Your task to perform on an android device: Turn off the flashlight Image 0: 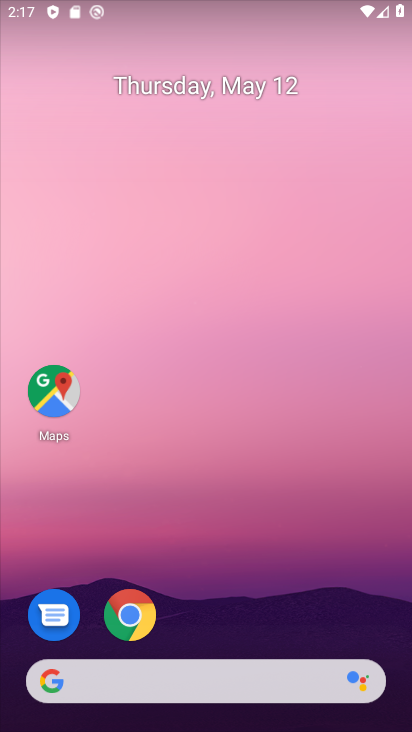
Step 0: drag from (73, 558) to (228, 88)
Your task to perform on an android device: Turn off the flashlight Image 1: 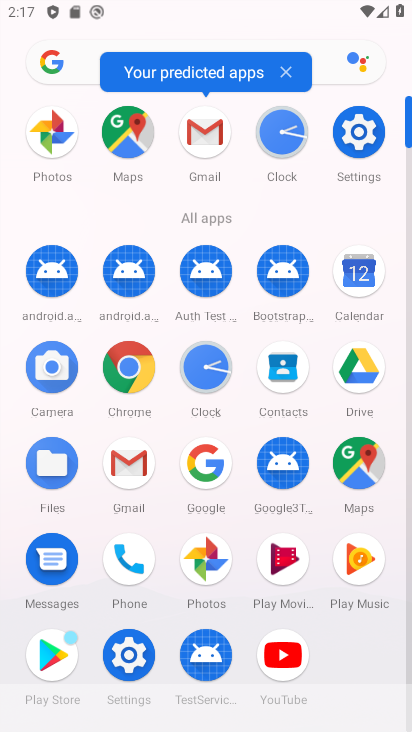
Step 1: click (363, 118)
Your task to perform on an android device: Turn off the flashlight Image 2: 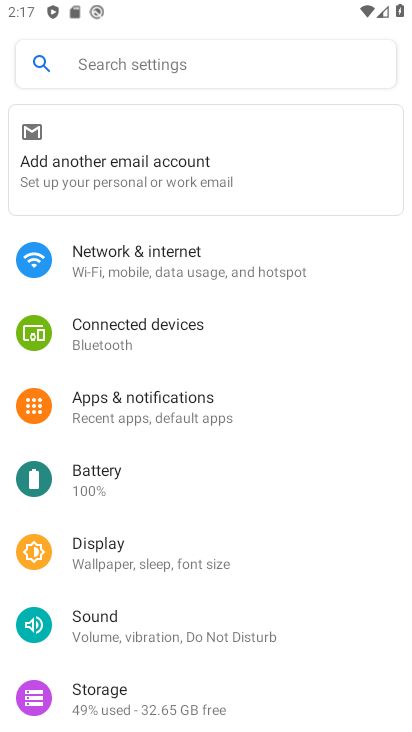
Step 2: click (167, 568)
Your task to perform on an android device: Turn off the flashlight Image 3: 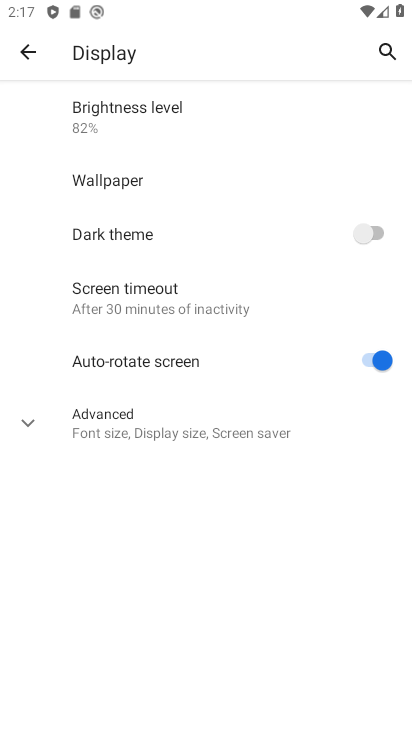
Step 3: task complete